Your task to perform on an android device: Look up the new steph curry shoes Image 0: 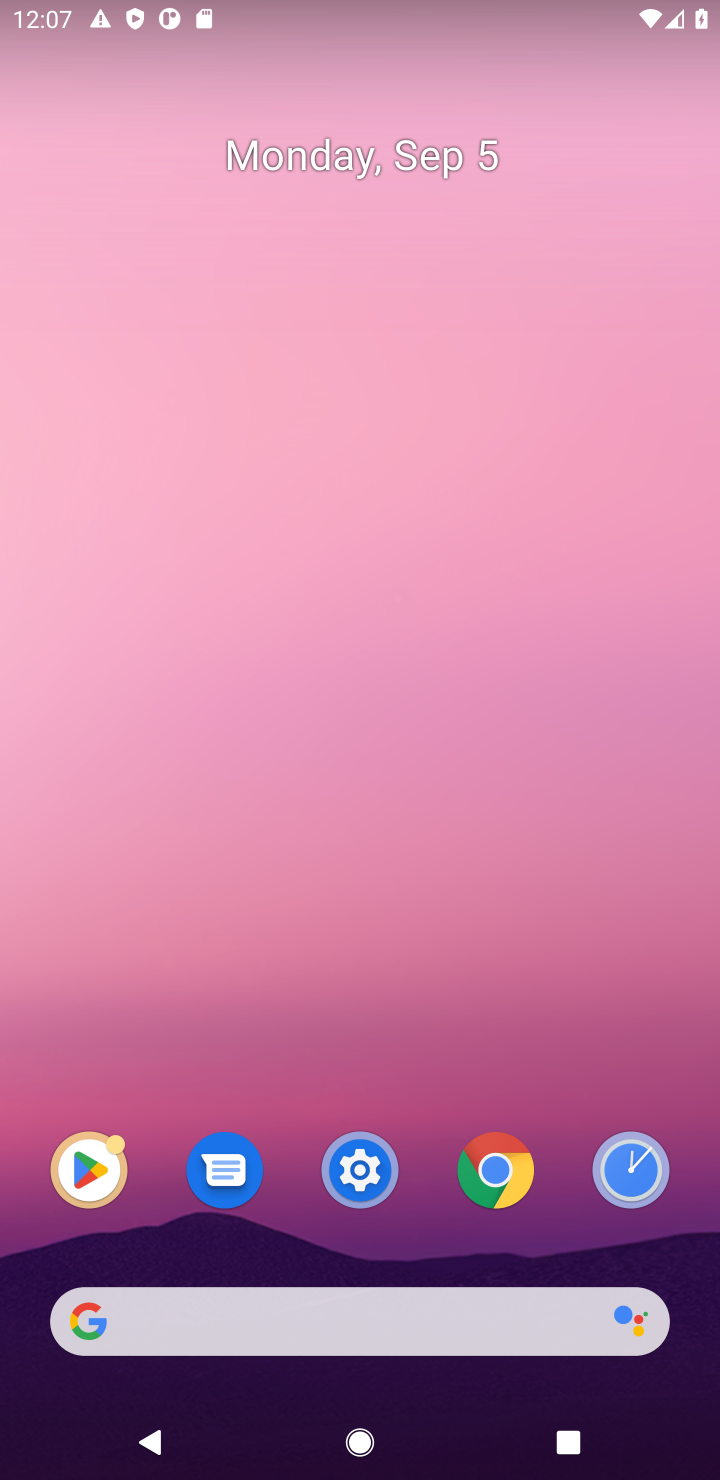
Step 0: click (330, 1330)
Your task to perform on an android device: Look up the new steph curry shoes Image 1: 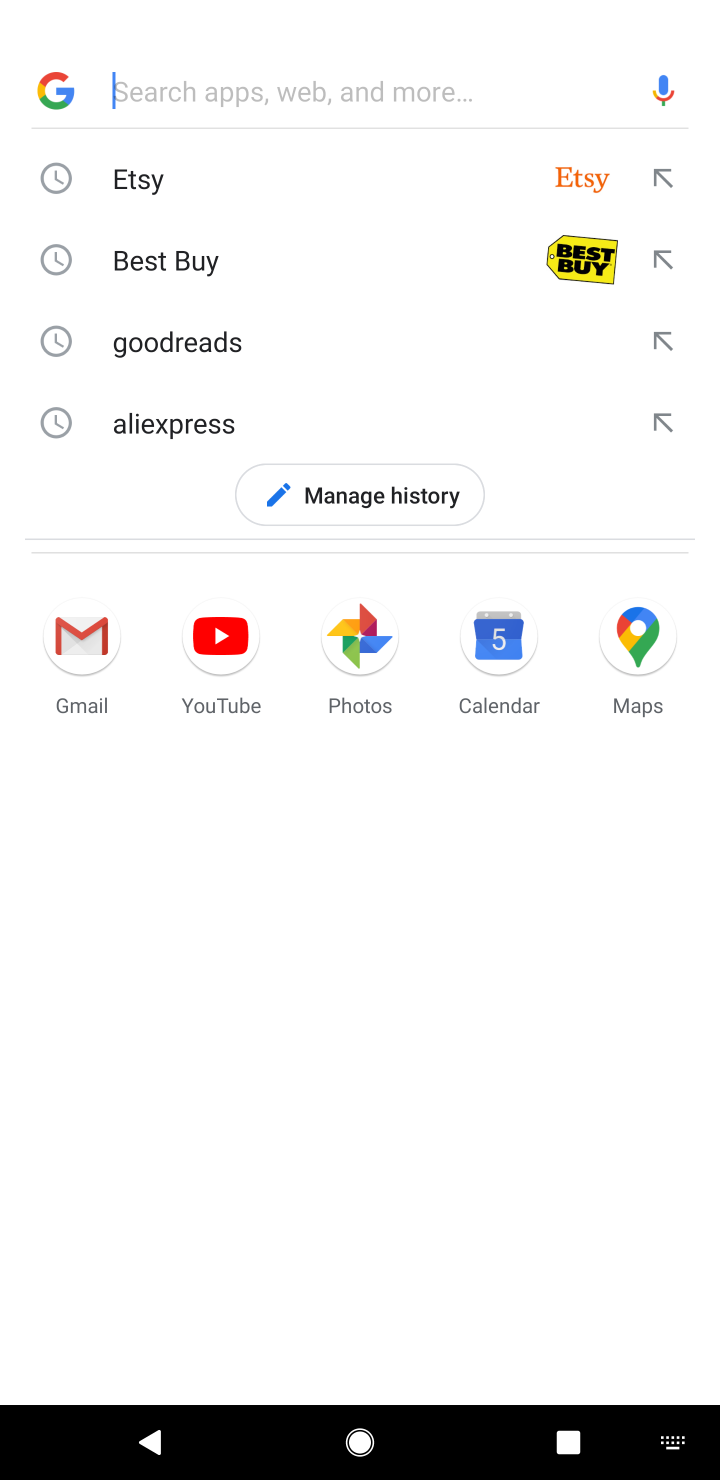
Step 1: type "new steph curry shoes"
Your task to perform on an android device: Look up the new steph curry shoes Image 2: 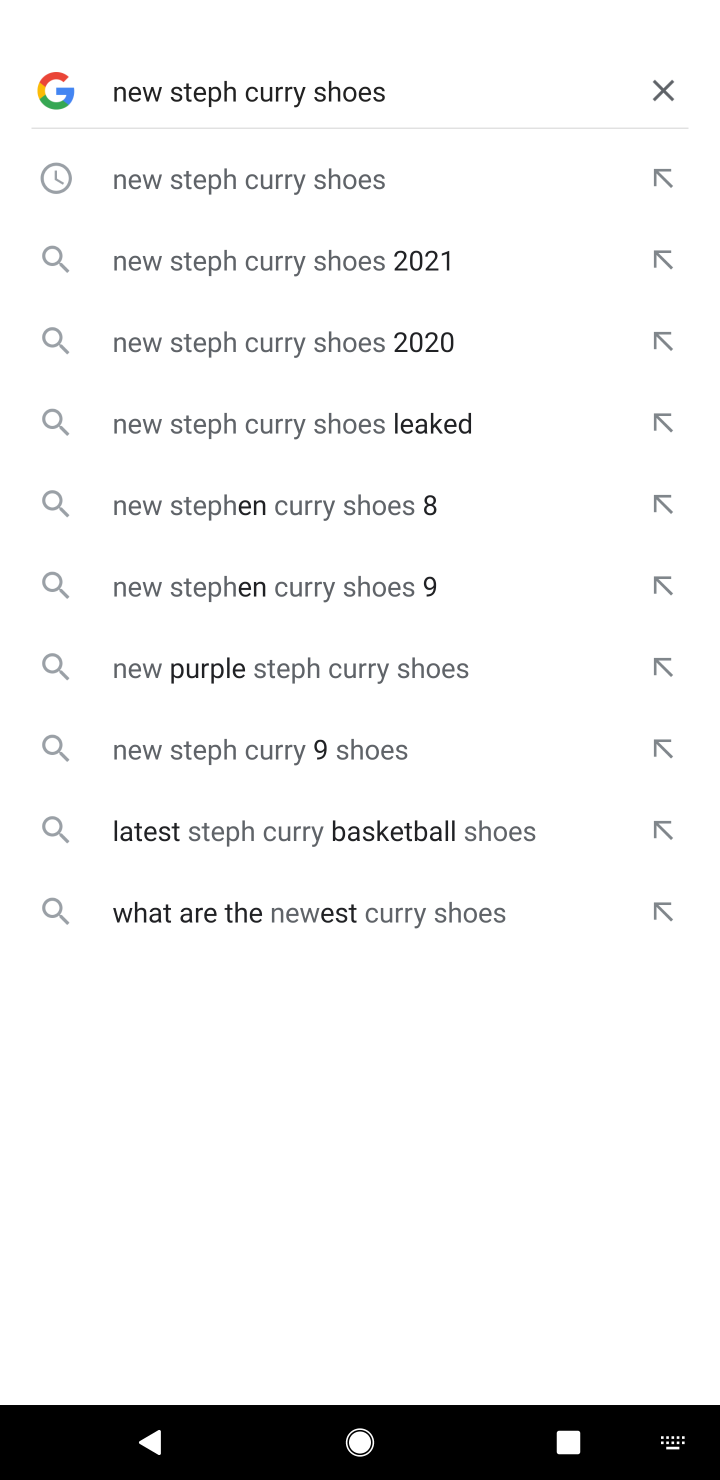
Step 2: click (351, 162)
Your task to perform on an android device: Look up the new steph curry shoes Image 3: 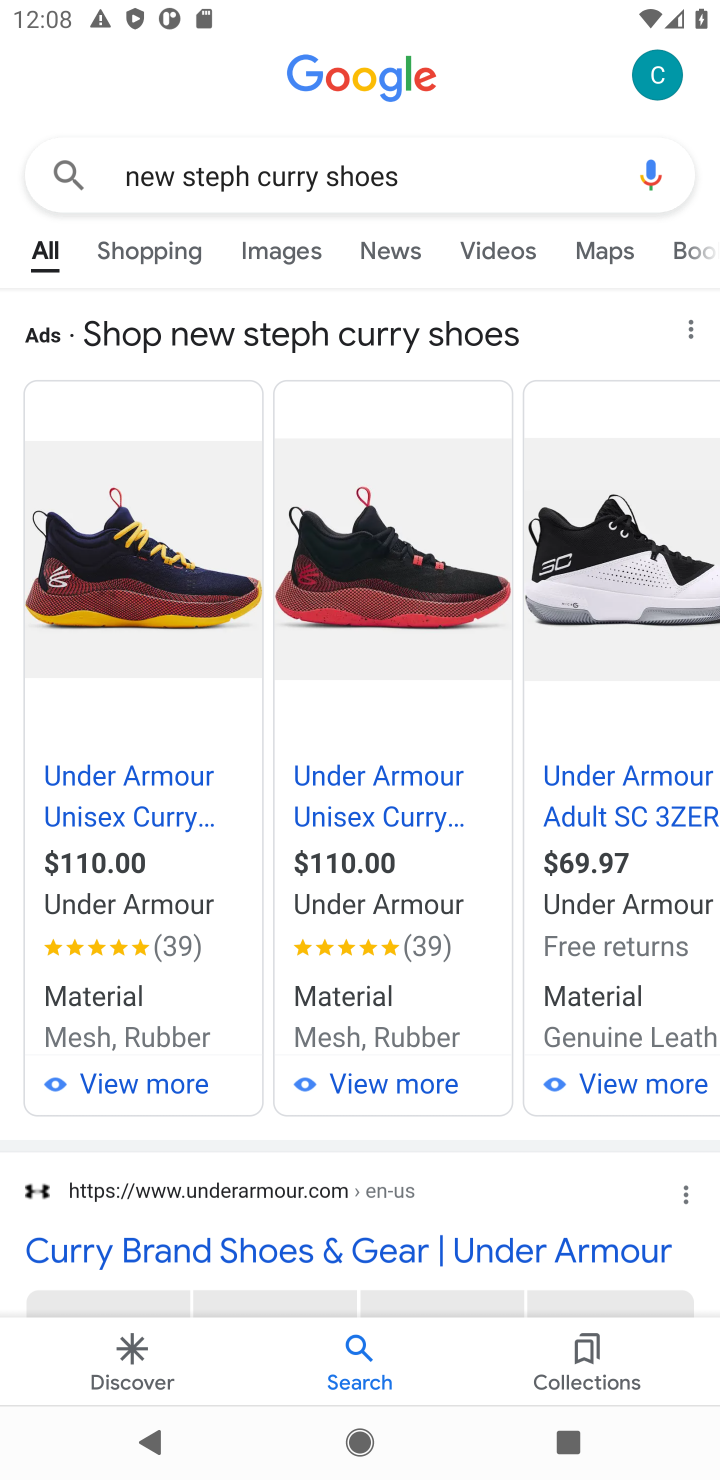
Step 3: task complete